Your task to perform on an android device: What is the recent news? Image 0: 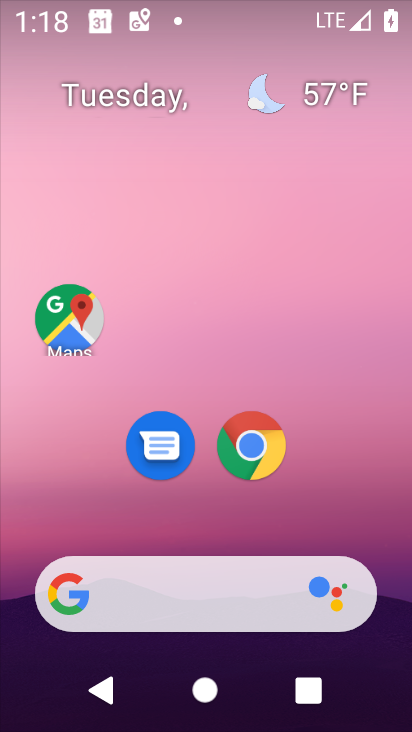
Step 0: drag from (4, 230) to (409, 323)
Your task to perform on an android device: What is the recent news? Image 1: 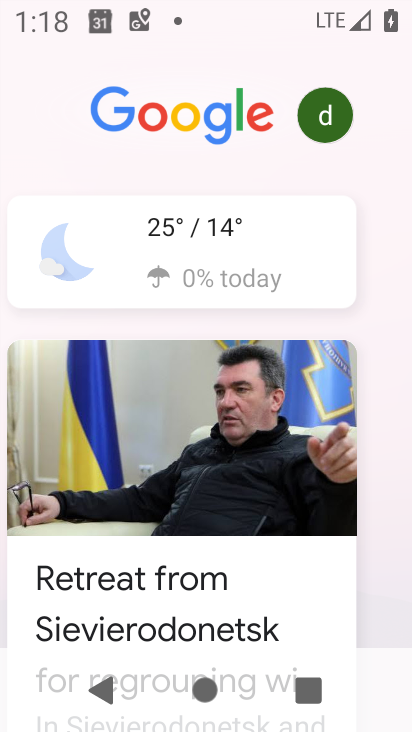
Step 1: task complete